Your task to perform on an android device: turn pop-ups off in chrome Image 0: 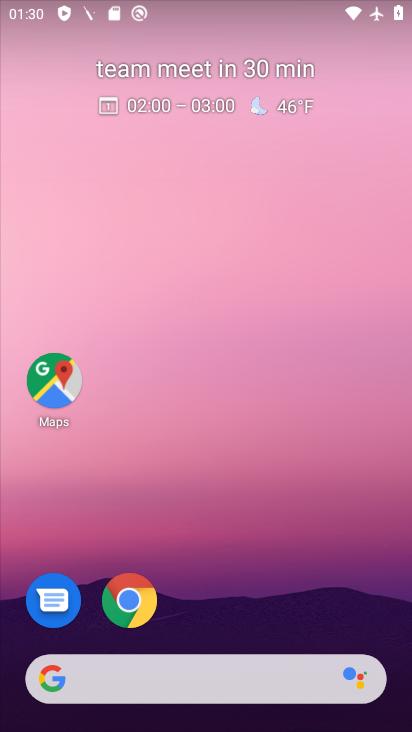
Step 0: drag from (178, 646) to (154, 3)
Your task to perform on an android device: turn pop-ups off in chrome Image 1: 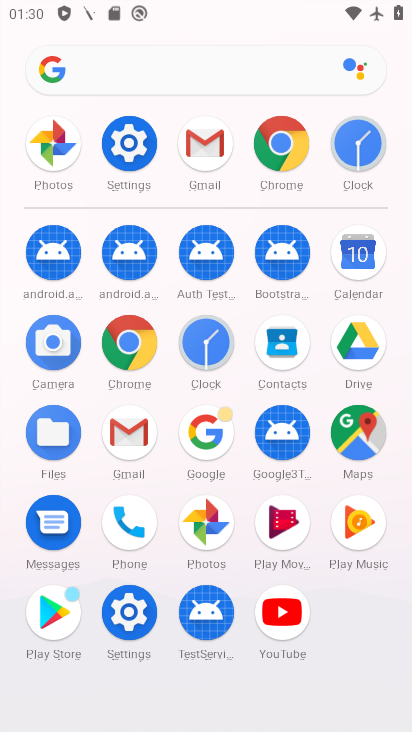
Step 1: click (125, 352)
Your task to perform on an android device: turn pop-ups off in chrome Image 2: 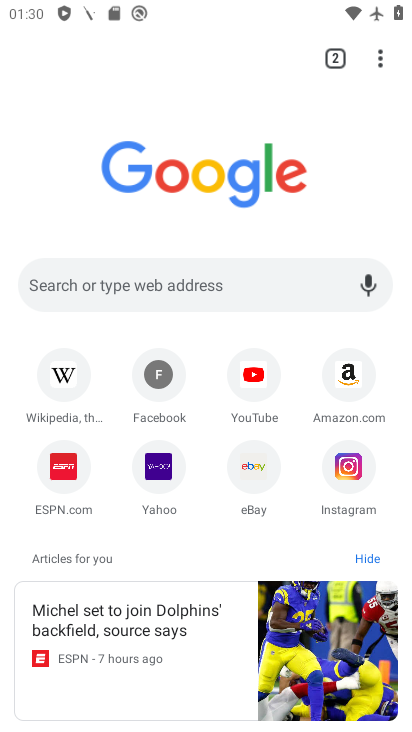
Step 2: click (376, 70)
Your task to perform on an android device: turn pop-ups off in chrome Image 3: 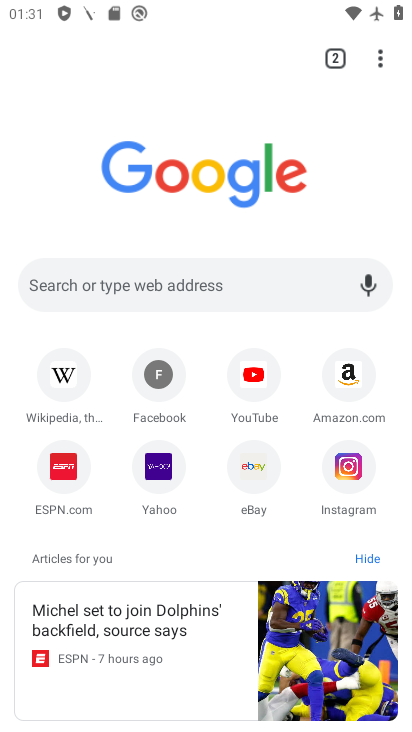
Step 3: drag from (379, 58) to (187, 493)
Your task to perform on an android device: turn pop-ups off in chrome Image 4: 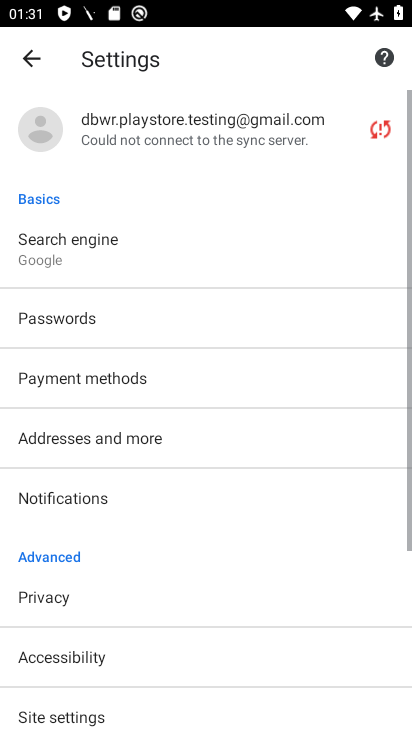
Step 4: drag from (185, 496) to (177, 103)
Your task to perform on an android device: turn pop-ups off in chrome Image 5: 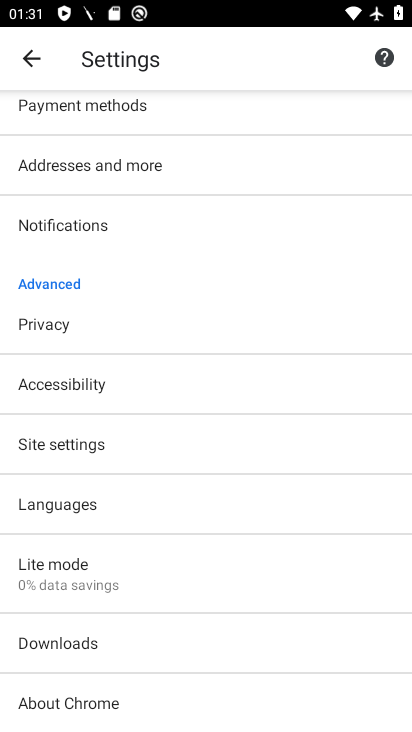
Step 5: click (54, 445)
Your task to perform on an android device: turn pop-ups off in chrome Image 6: 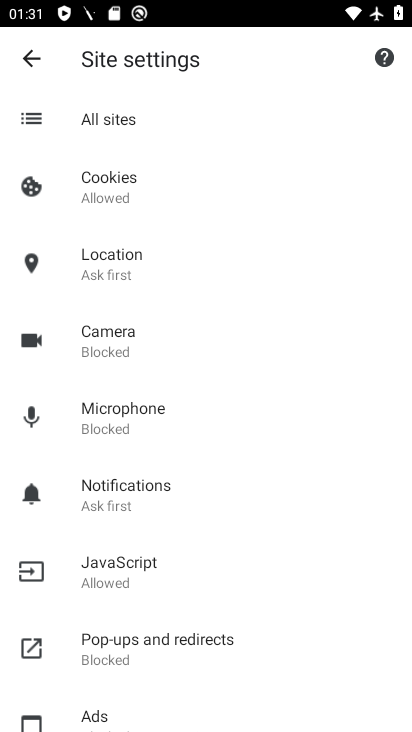
Step 6: click (140, 624)
Your task to perform on an android device: turn pop-ups off in chrome Image 7: 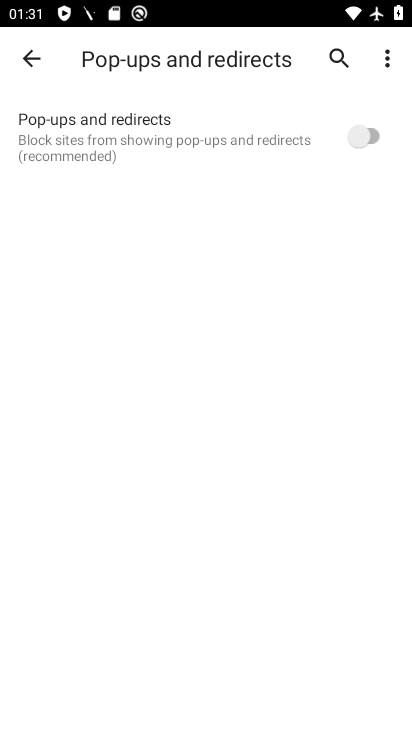
Step 7: task complete